Your task to perform on an android device: Open eBay Image 0: 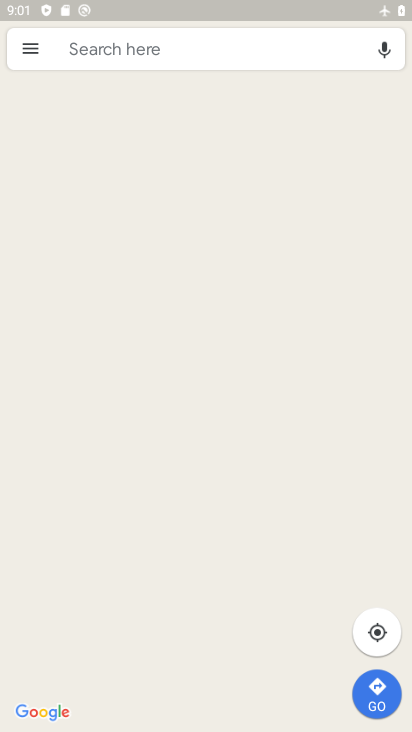
Step 0: press home button
Your task to perform on an android device: Open eBay Image 1: 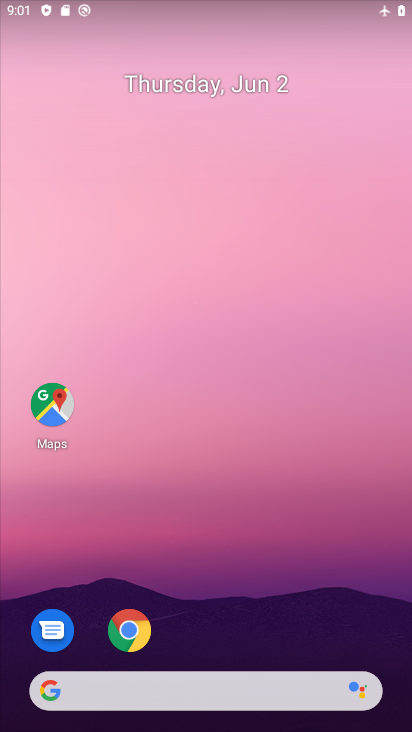
Step 1: drag from (246, 617) to (249, 30)
Your task to perform on an android device: Open eBay Image 2: 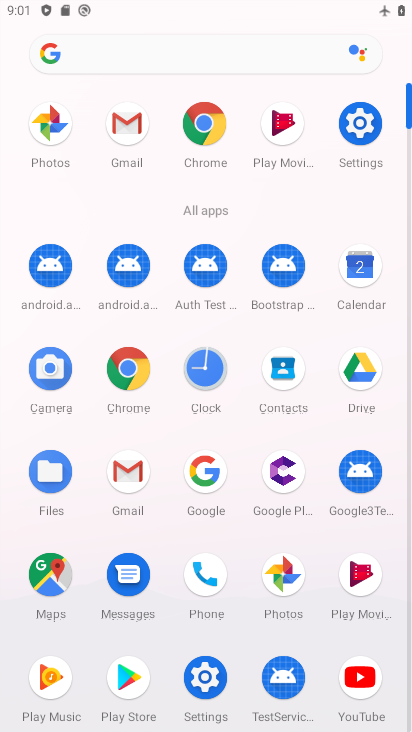
Step 2: click (207, 476)
Your task to perform on an android device: Open eBay Image 3: 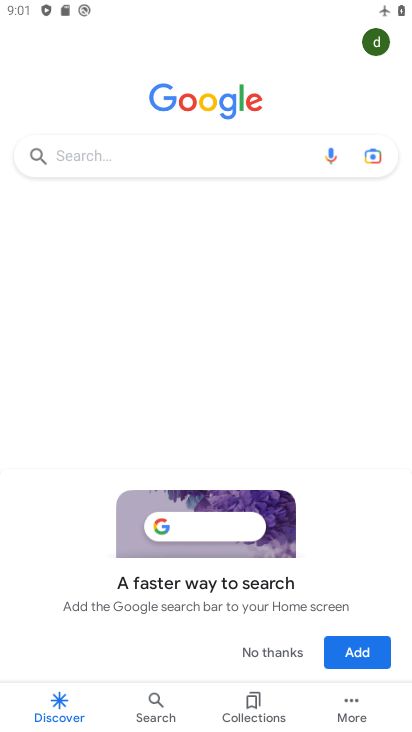
Step 3: click (143, 157)
Your task to perform on an android device: Open eBay Image 4: 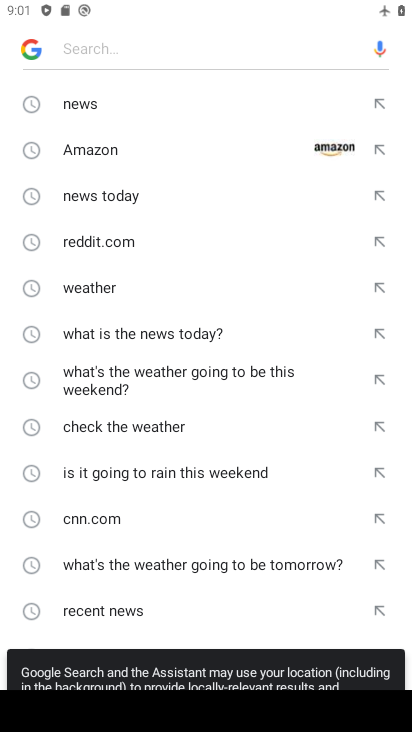
Step 4: drag from (213, 543) to (236, 57)
Your task to perform on an android device: Open eBay Image 5: 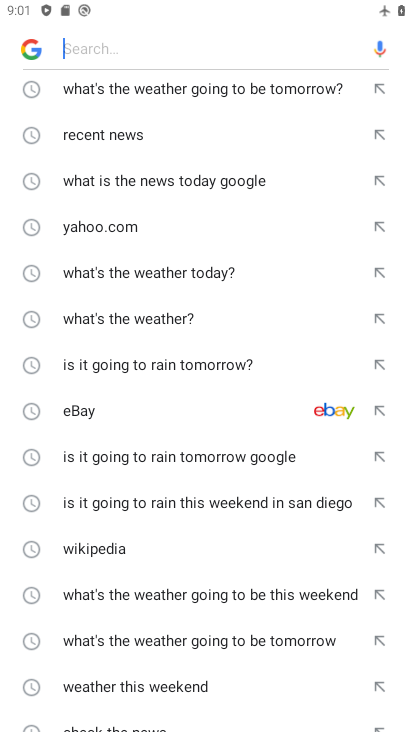
Step 5: click (112, 415)
Your task to perform on an android device: Open eBay Image 6: 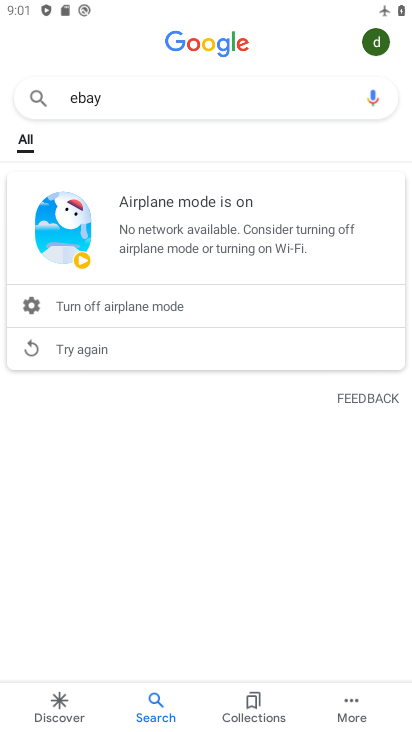
Step 6: task complete